Your task to perform on an android device: Search for pizza restaurants on Maps Image 0: 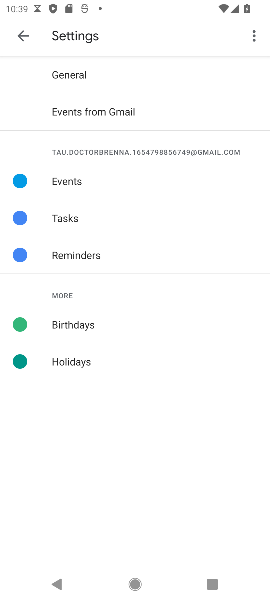
Step 0: press home button
Your task to perform on an android device: Search for pizza restaurants on Maps Image 1: 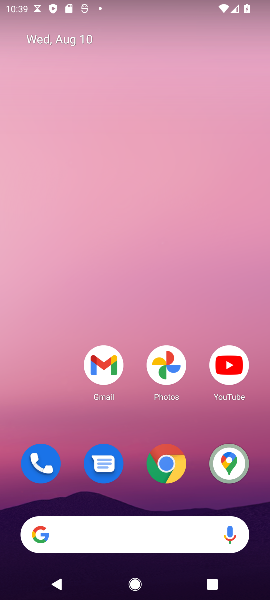
Step 1: click (237, 455)
Your task to perform on an android device: Search for pizza restaurants on Maps Image 2: 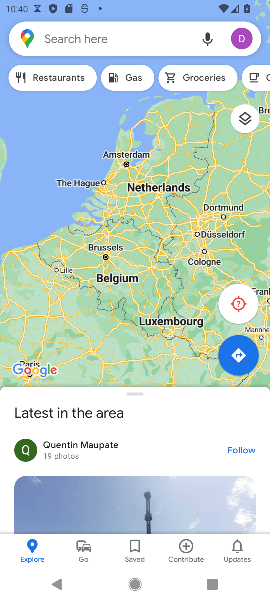
Step 2: click (72, 37)
Your task to perform on an android device: Search for pizza restaurants on Maps Image 3: 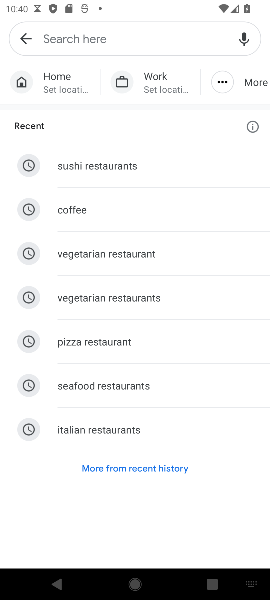
Step 3: type "pizza restaurants"
Your task to perform on an android device: Search for pizza restaurants on Maps Image 4: 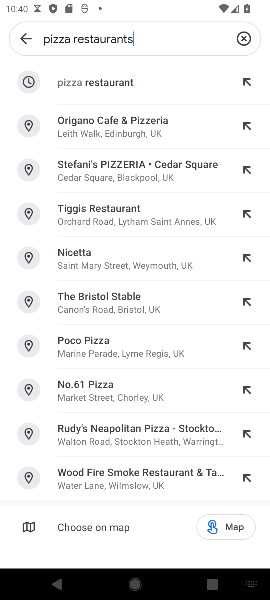
Step 4: click (242, 78)
Your task to perform on an android device: Search for pizza restaurants on Maps Image 5: 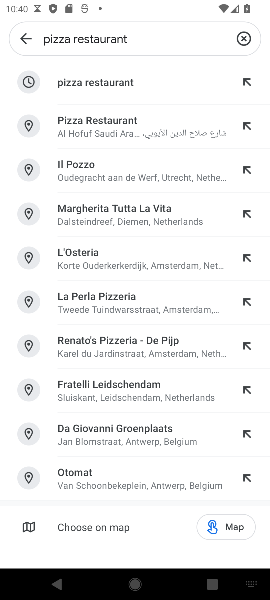
Step 5: click (96, 82)
Your task to perform on an android device: Search for pizza restaurants on Maps Image 6: 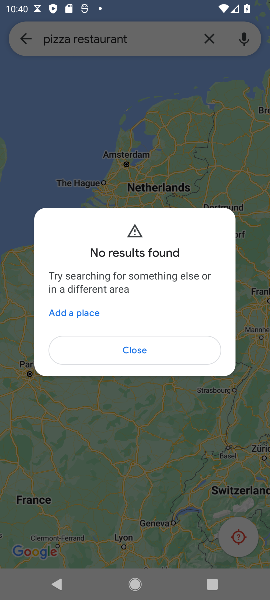
Step 6: task complete